Your task to perform on an android device: delete browsing data in the chrome app Image 0: 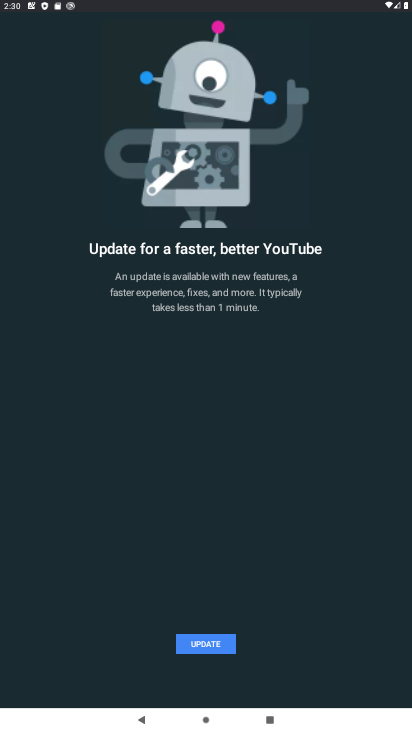
Step 0: press back button
Your task to perform on an android device: delete browsing data in the chrome app Image 1: 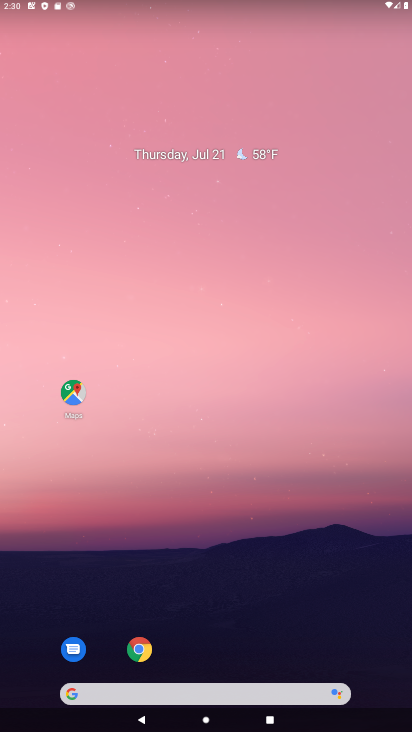
Step 1: click (142, 667)
Your task to perform on an android device: delete browsing data in the chrome app Image 2: 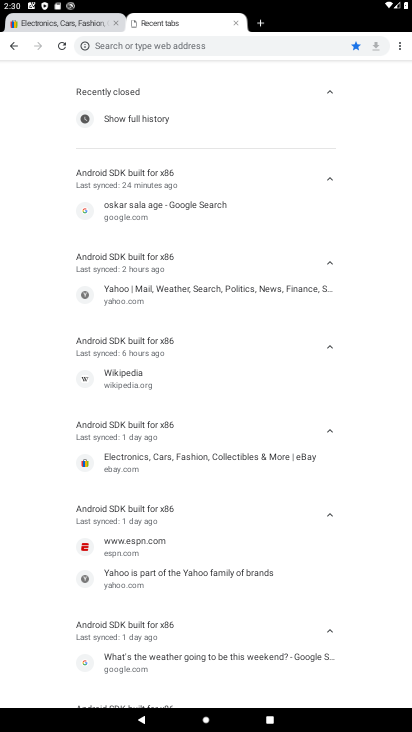
Step 2: click (401, 45)
Your task to perform on an android device: delete browsing data in the chrome app Image 3: 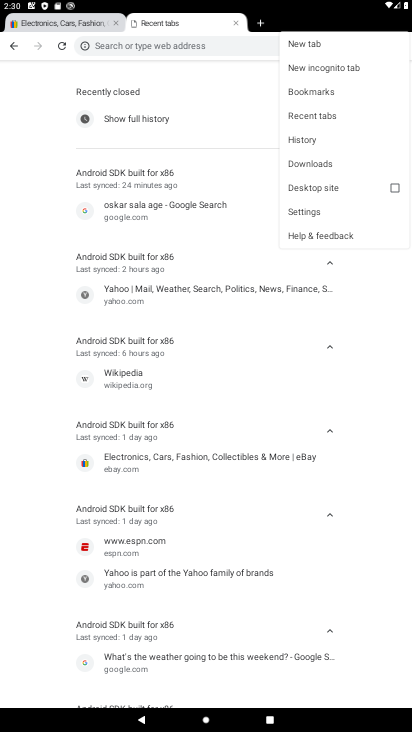
Step 3: click (319, 218)
Your task to perform on an android device: delete browsing data in the chrome app Image 4: 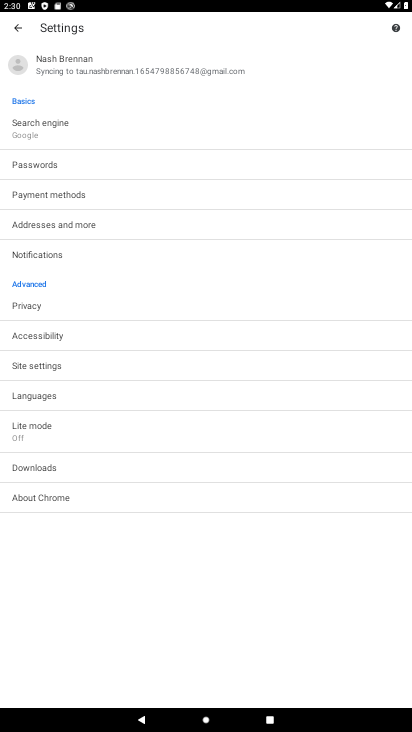
Step 4: task complete